Your task to perform on an android device: Check the settings for the Instagram app Image 0: 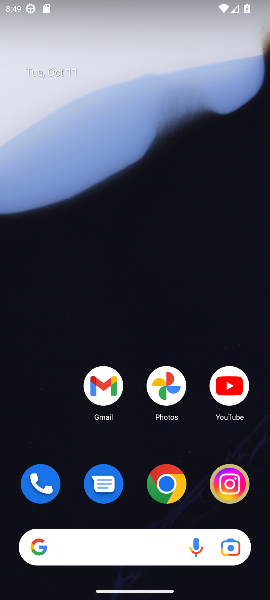
Step 0: click (228, 484)
Your task to perform on an android device: Check the settings for the Instagram app Image 1: 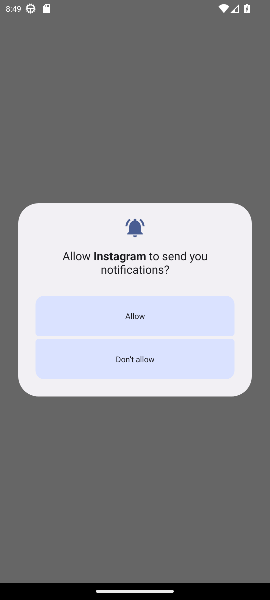
Step 1: click (134, 316)
Your task to perform on an android device: Check the settings for the Instagram app Image 2: 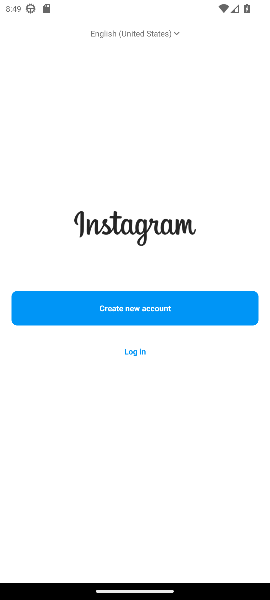
Step 2: click (139, 347)
Your task to perform on an android device: Check the settings for the Instagram app Image 3: 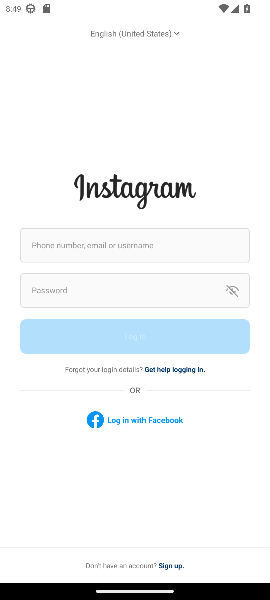
Step 3: task complete